Your task to perform on an android device: Go to Android settings Image 0: 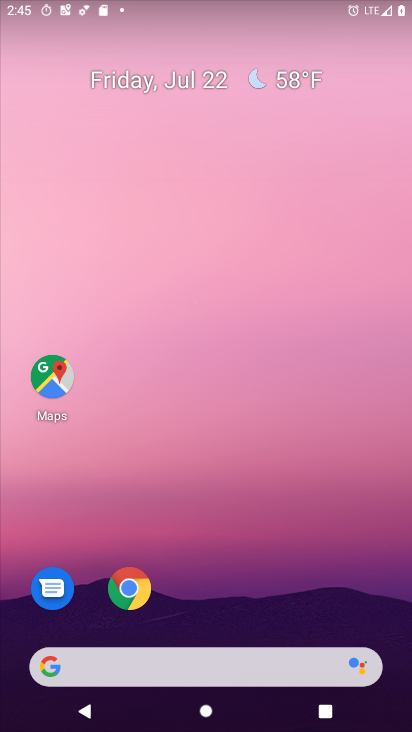
Step 0: drag from (249, 622) to (223, 18)
Your task to perform on an android device: Go to Android settings Image 1: 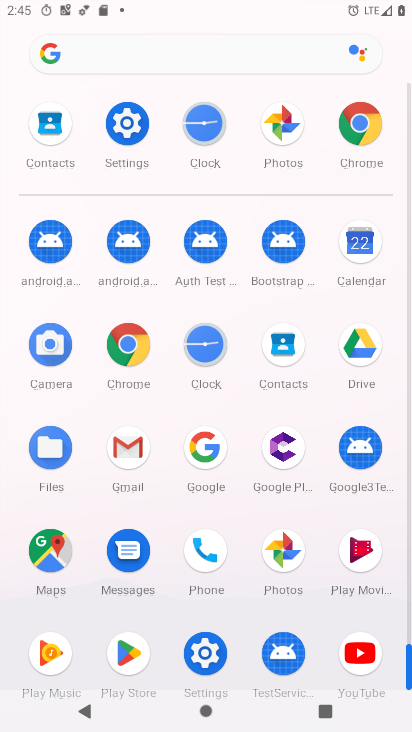
Step 1: click (203, 656)
Your task to perform on an android device: Go to Android settings Image 2: 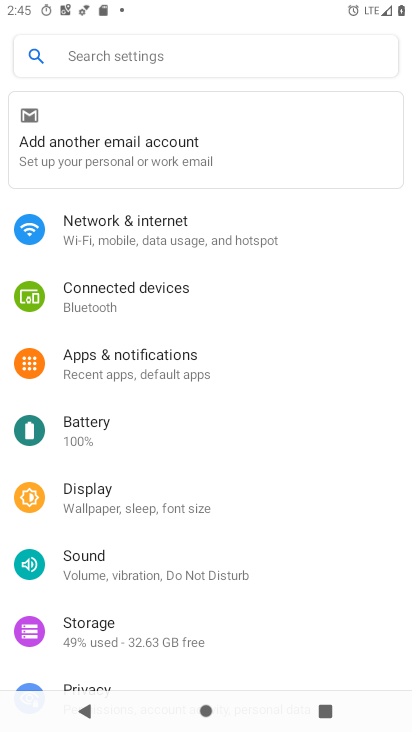
Step 2: drag from (162, 627) to (152, 209)
Your task to perform on an android device: Go to Android settings Image 3: 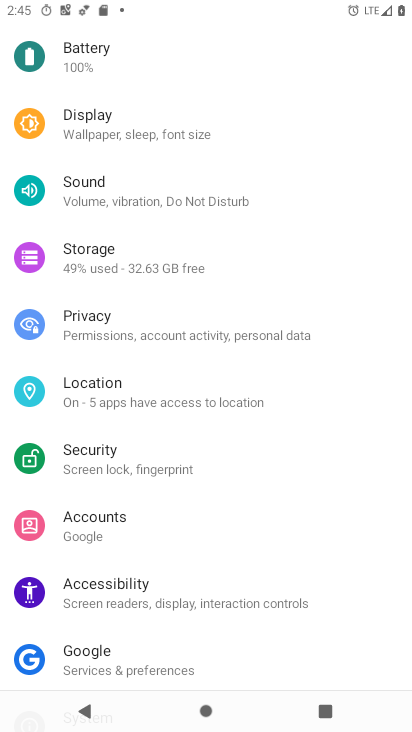
Step 3: drag from (184, 631) to (155, 155)
Your task to perform on an android device: Go to Android settings Image 4: 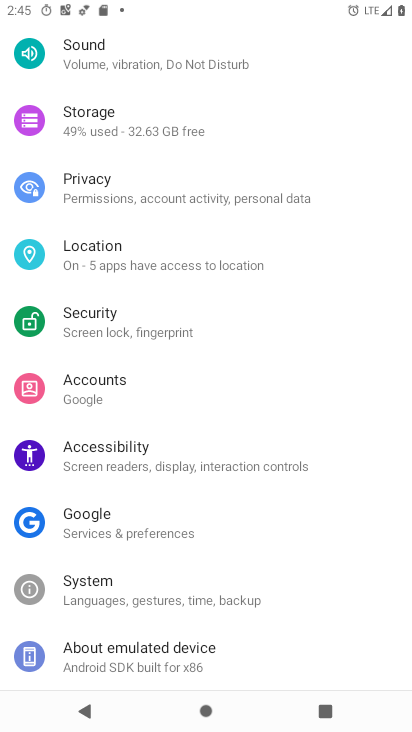
Step 4: click (201, 647)
Your task to perform on an android device: Go to Android settings Image 5: 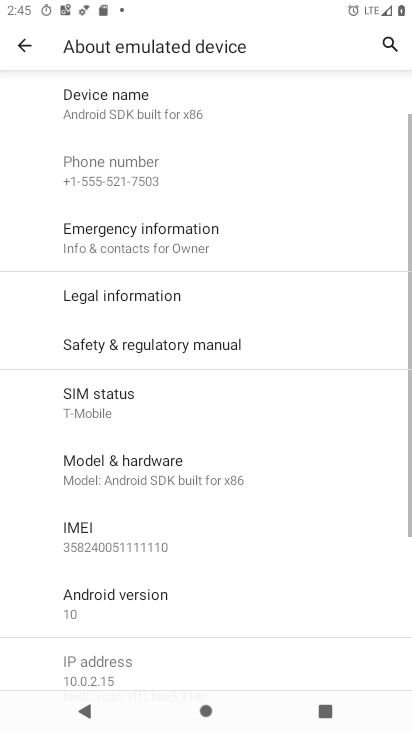
Step 5: click (155, 592)
Your task to perform on an android device: Go to Android settings Image 6: 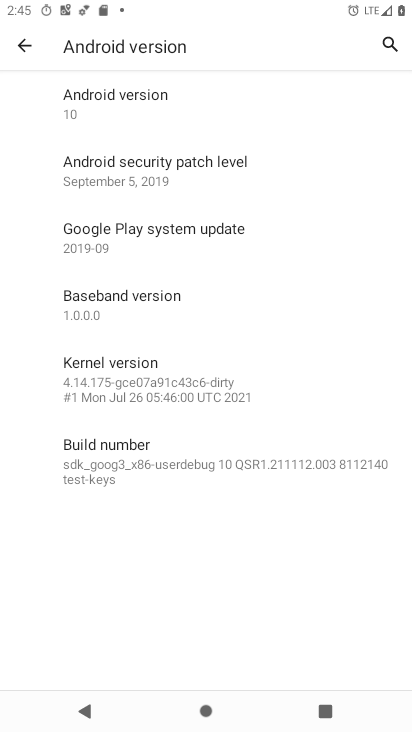
Step 6: task complete